Your task to perform on an android device: Open maps Image 0: 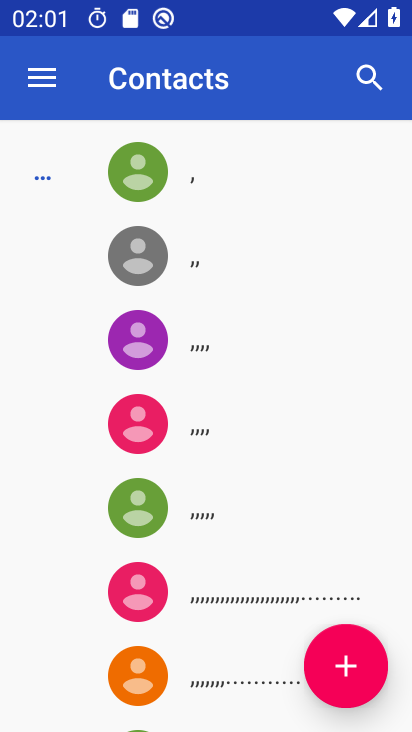
Step 0: press home button
Your task to perform on an android device: Open maps Image 1: 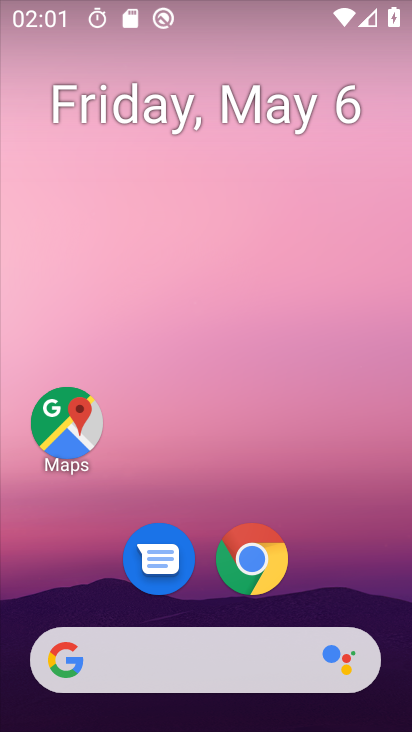
Step 1: drag from (201, 630) to (226, 6)
Your task to perform on an android device: Open maps Image 2: 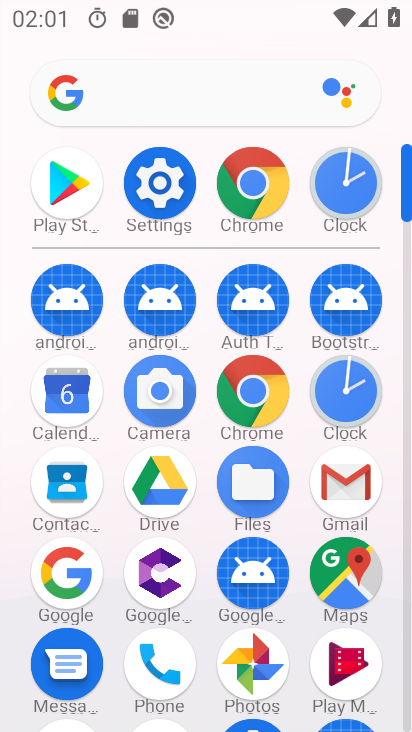
Step 2: click (345, 566)
Your task to perform on an android device: Open maps Image 3: 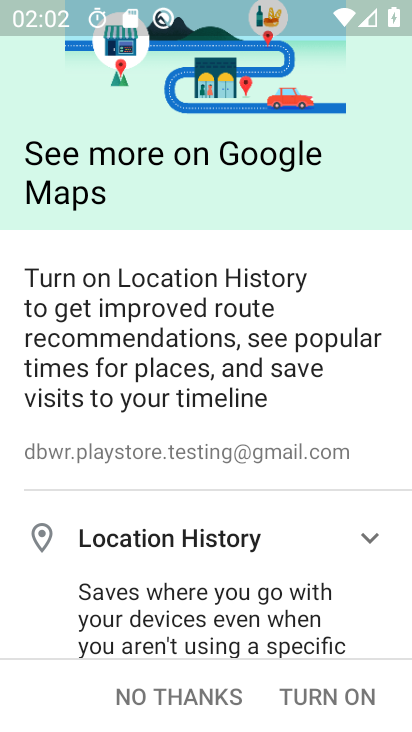
Step 3: task complete